Your task to perform on an android device: open chrome privacy settings Image 0: 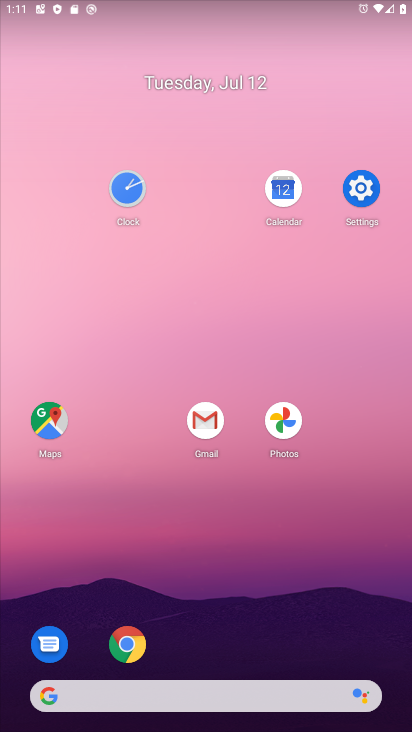
Step 0: click (122, 654)
Your task to perform on an android device: open chrome privacy settings Image 1: 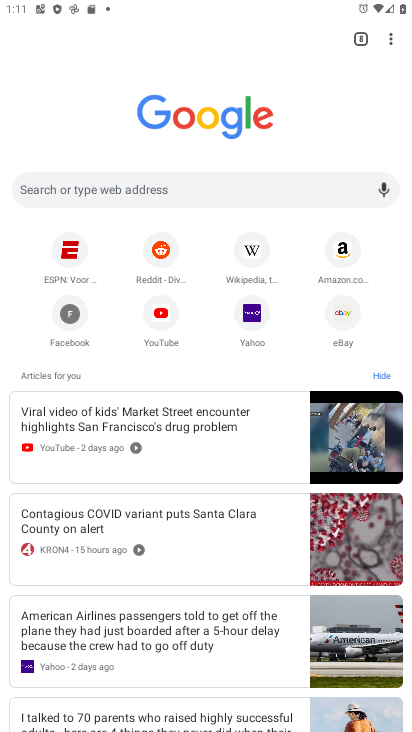
Step 1: click (393, 39)
Your task to perform on an android device: open chrome privacy settings Image 2: 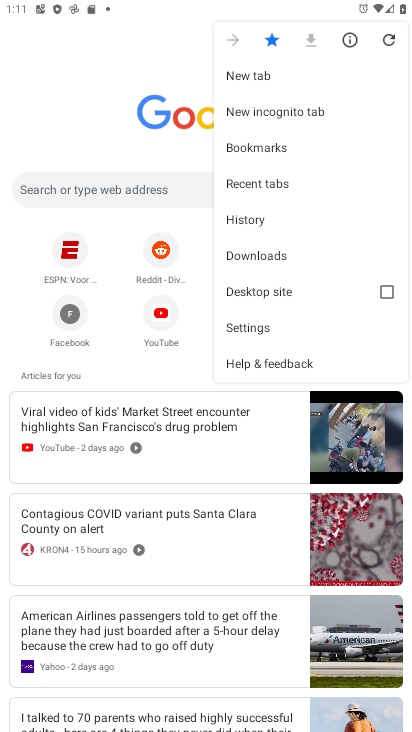
Step 2: click (276, 331)
Your task to perform on an android device: open chrome privacy settings Image 3: 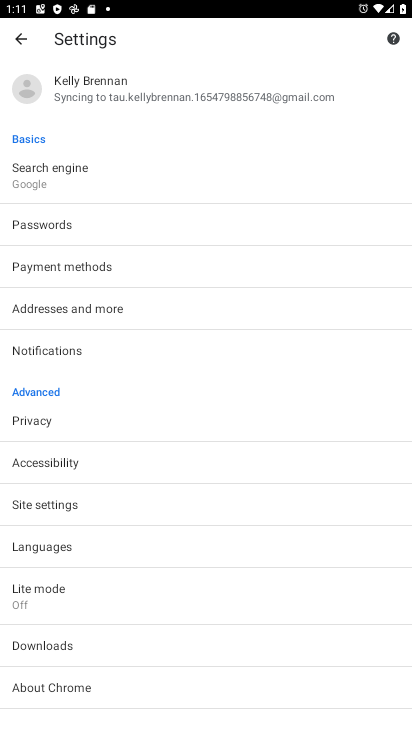
Step 3: click (42, 409)
Your task to perform on an android device: open chrome privacy settings Image 4: 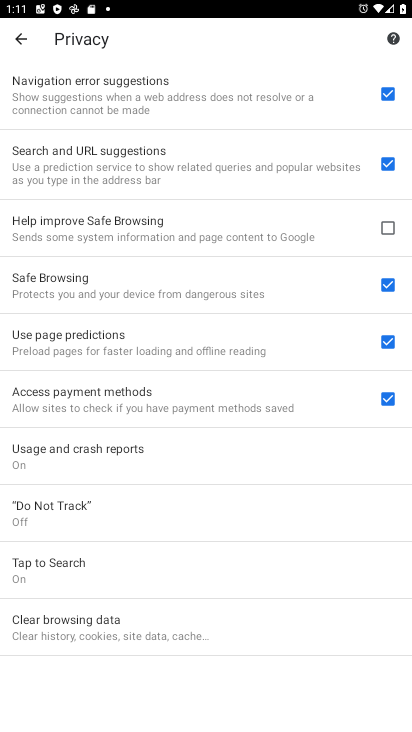
Step 4: task complete